Your task to perform on an android device: Check the weather Image 0: 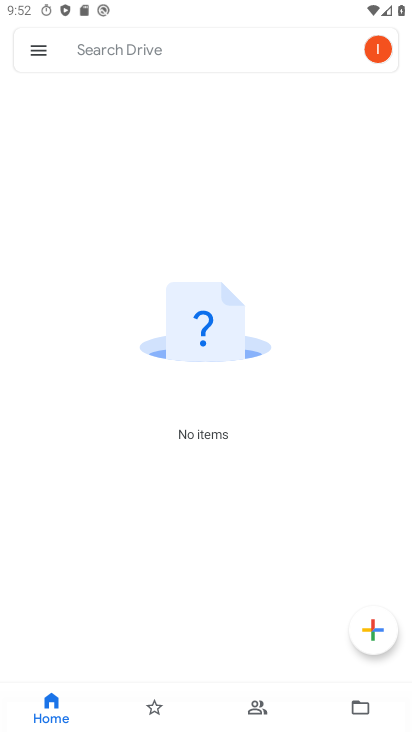
Step 0: press home button
Your task to perform on an android device: Check the weather Image 1: 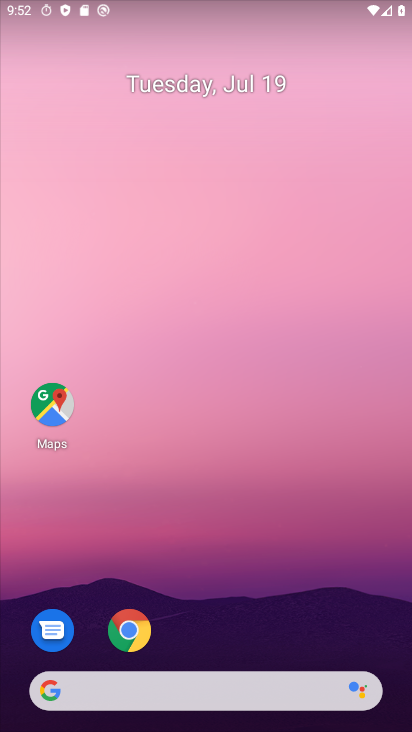
Step 1: click (163, 694)
Your task to perform on an android device: Check the weather Image 2: 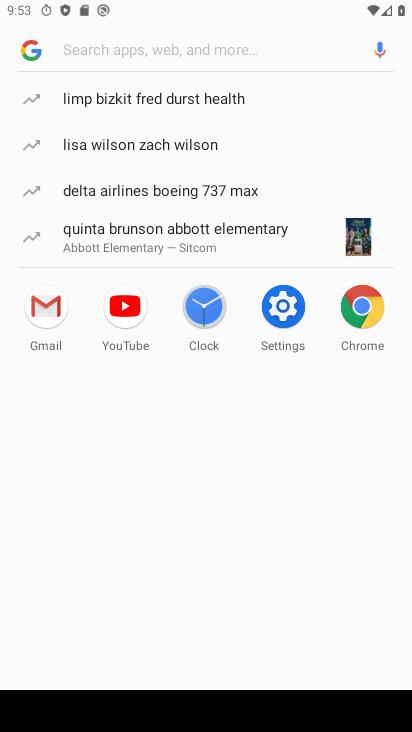
Step 2: click (91, 43)
Your task to perform on an android device: Check the weather Image 3: 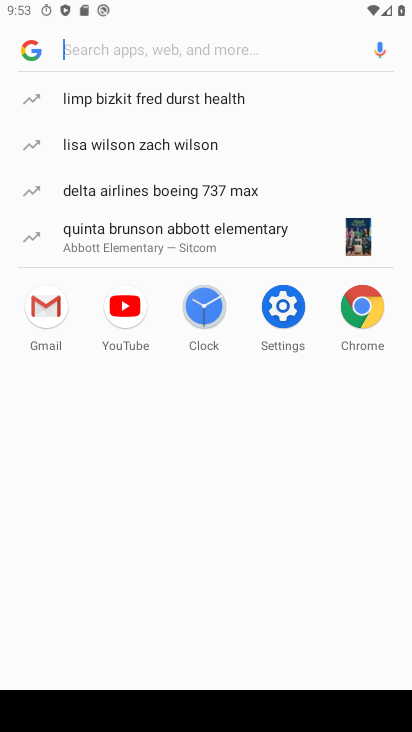
Step 3: type "weather"
Your task to perform on an android device: Check the weather Image 4: 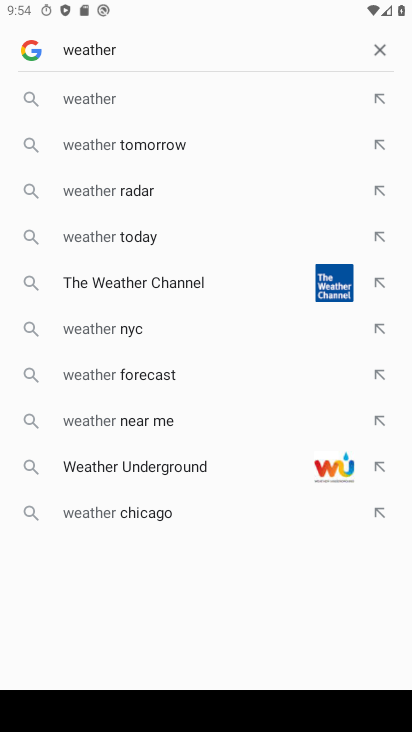
Step 4: click (74, 105)
Your task to perform on an android device: Check the weather Image 5: 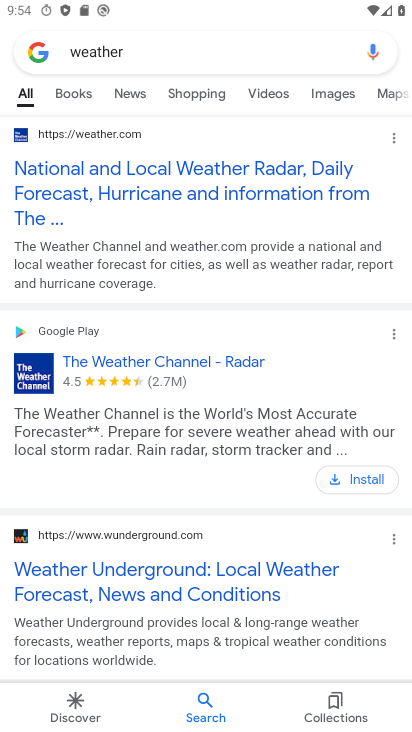
Step 5: click (45, 122)
Your task to perform on an android device: Check the weather Image 6: 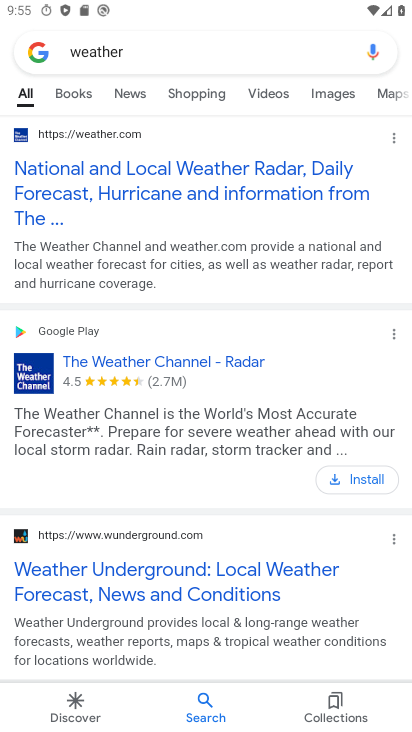
Step 6: task complete